Your task to perform on an android device: Open privacy settings Image 0: 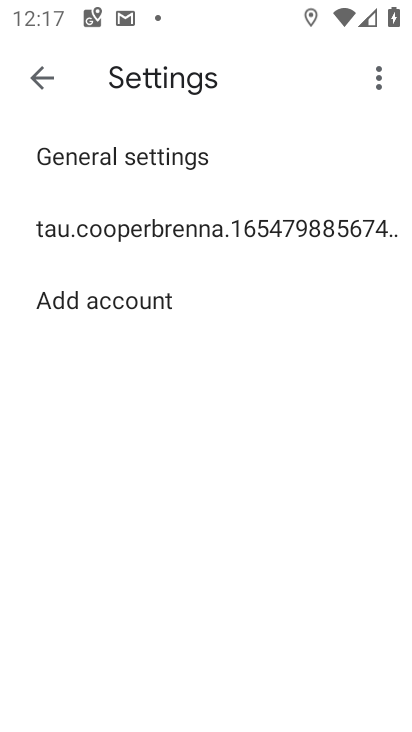
Step 0: press home button
Your task to perform on an android device: Open privacy settings Image 1: 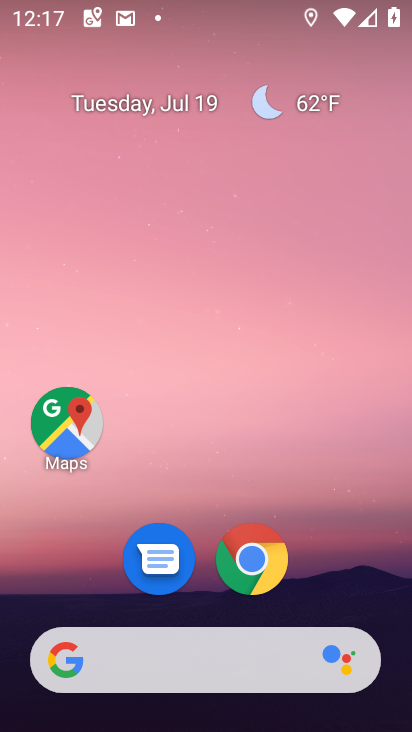
Step 1: drag from (197, 611) to (225, 196)
Your task to perform on an android device: Open privacy settings Image 2: 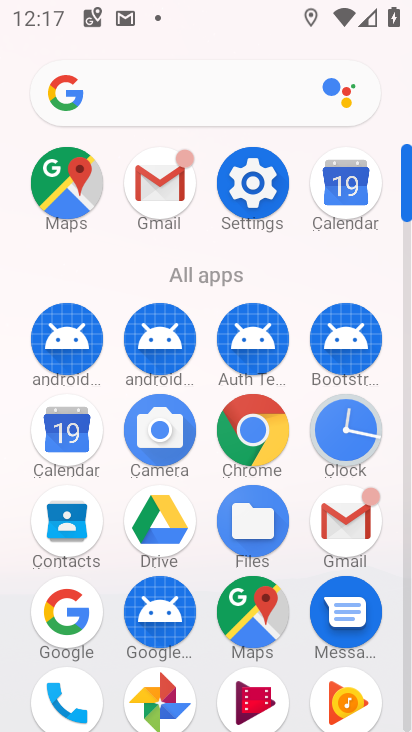
Step 2: click (268, 194)
Your task to perform on an android device: Open privacy settings Image 3: 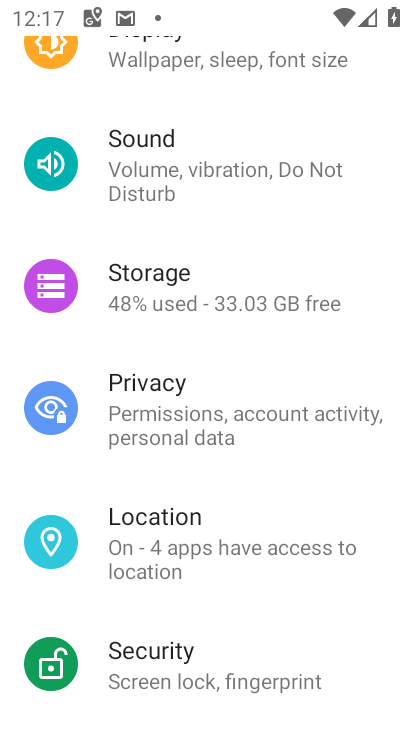
Step 3: click (206, 428)
Your task to perform on an android device: Open privacy settings Image 4: 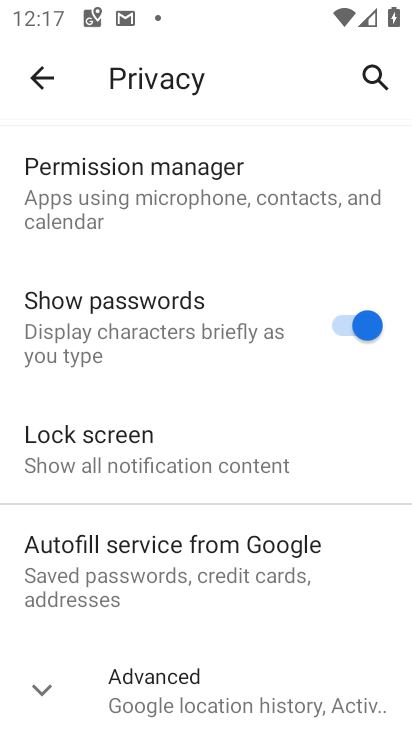
Step 4: task complete